Your task to perform on an android device: Open the calendar and show me this week's events? Image 0: 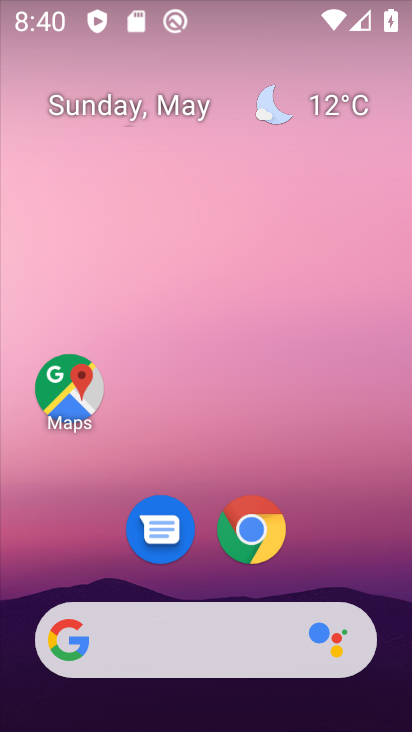
Step 0: drag from (334, 578) to (272, 36)
Your task to perform on an android device: Open the calendar and show me this week's events? Image 1: 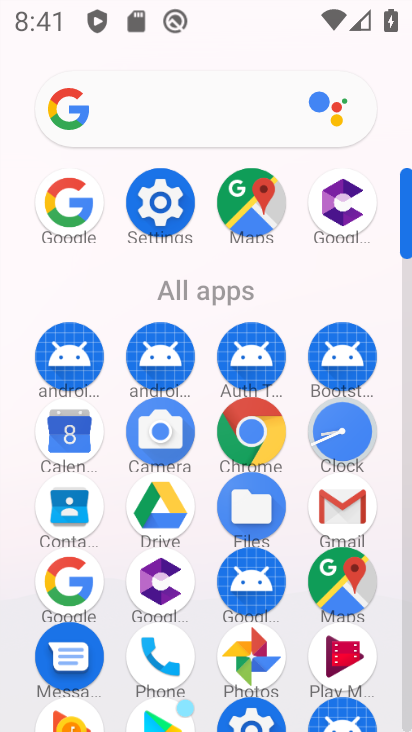
Step 1: click (75, 434)
Your task to perform on an android device: Open the calendar and show me this week's events? Image 2: 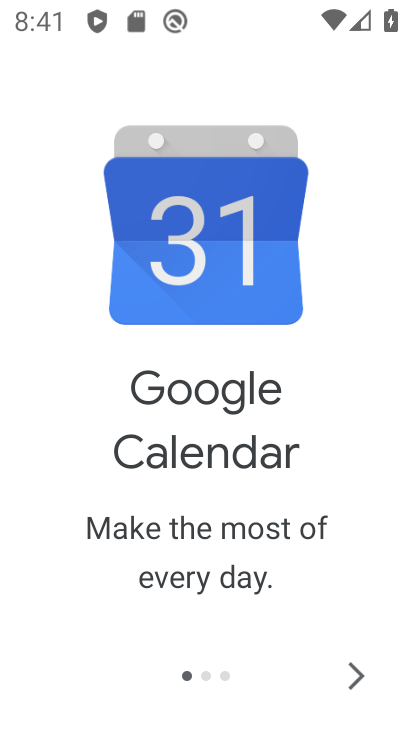
Step 2: click (353, 665)
Your task to perform on an android device: Open the calendar and show me this week's events? Image 3: 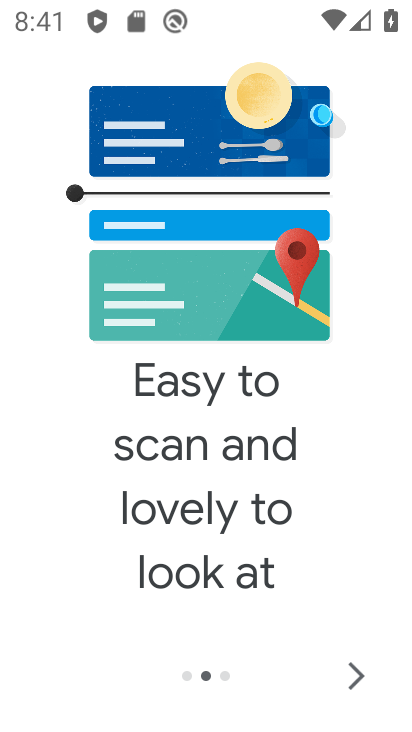
Step 3: click (361, 668)
Your task to perform on an android device: Open the calendar and show me this week's events? Image 4: 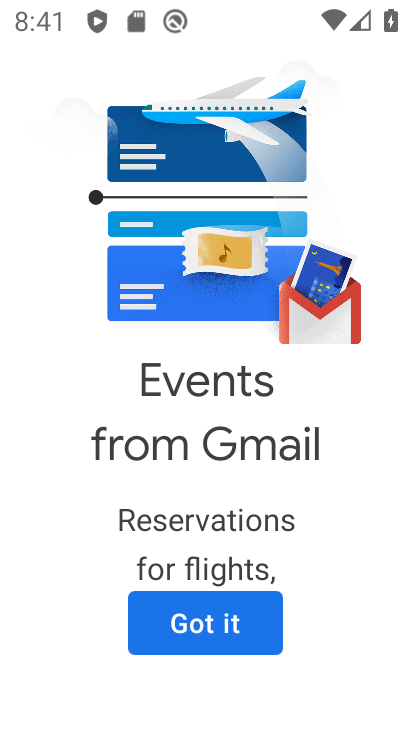
Step 4: click (206, 614)
Your task to perform on an android device: Open the calendar and show me this week's events? Image 5: 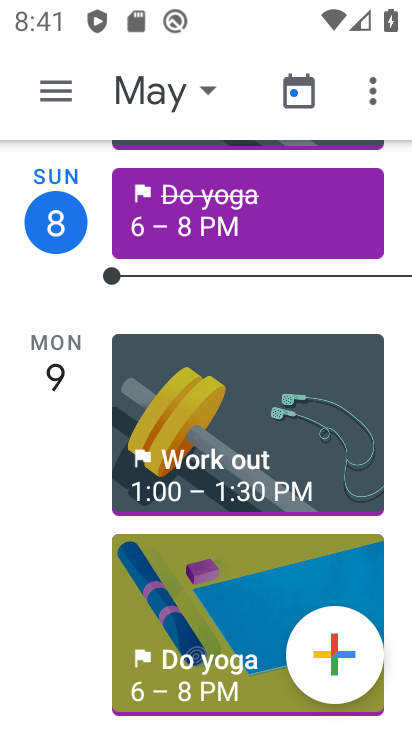
Step 5: click (58, 86)
Your task to perform on an android device: Open the calendar and show me this week's events? Image 6: 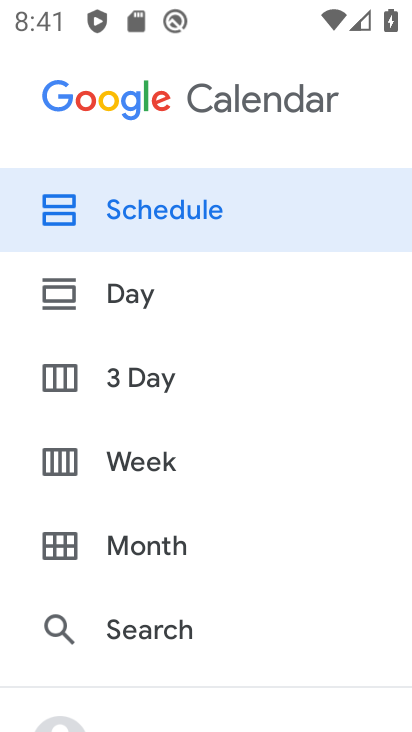
Step 6: click (156, 455)
Your task to perform on an android device: Open the calendar and show me this week's events? Image 7: 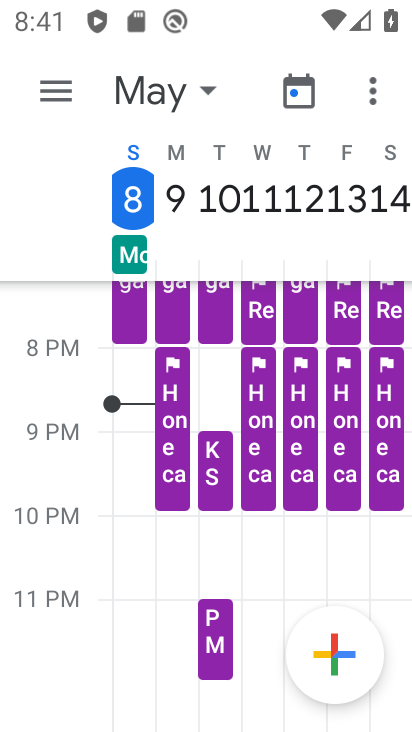
Step 7: click (47, 318)
Your task to perform on an android device: Open the calendar and show me this week's events? Image 8: 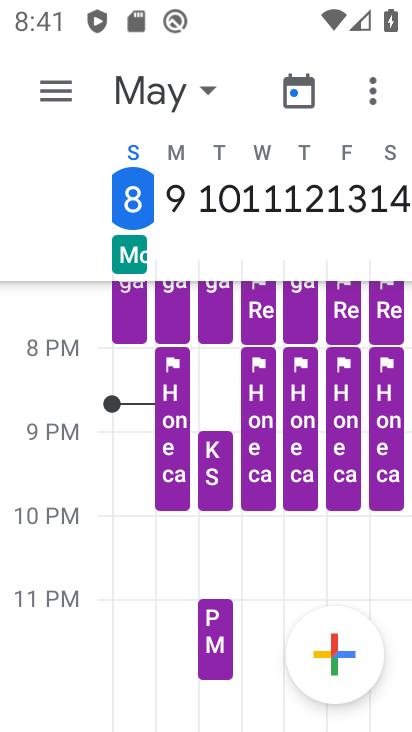
Step 8: task complete